Your task to perform on an android device: add a contact in the contacts app Image 0: 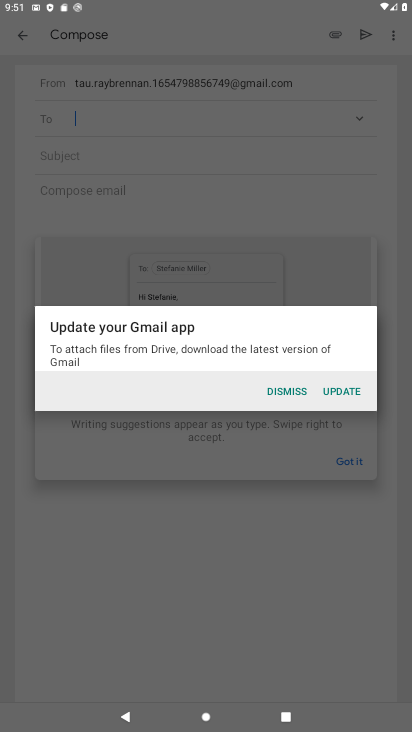
Step 0: press home button
Your task to perform on an android device: add a contact in the contacts app Image 1: 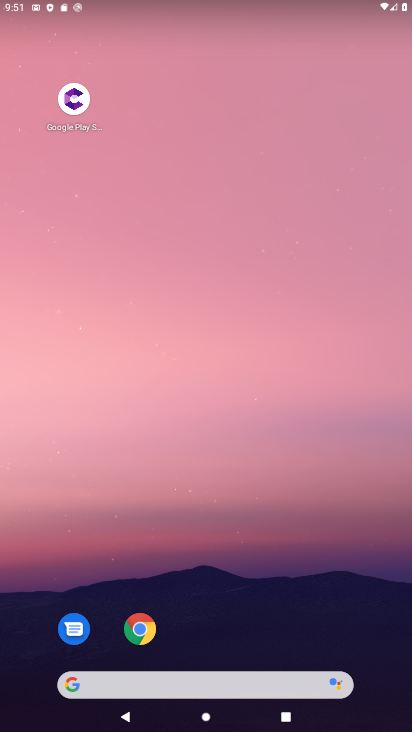
Step 1: click (228, 203)
Your task to perform on an android device: add a contact in the contacts app Image 2: 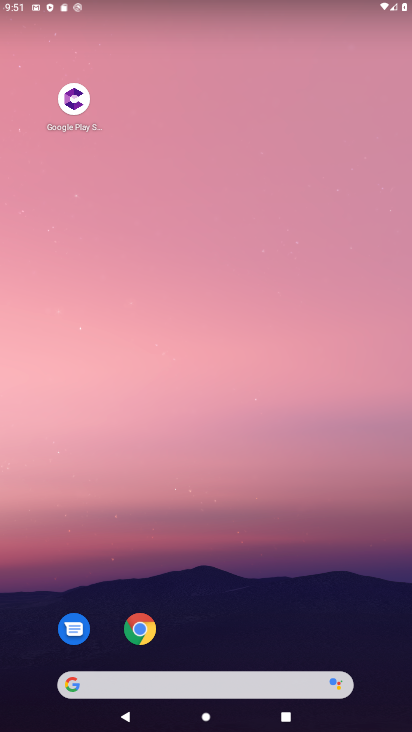
Step 2: drag from (212, 639) to (200, 131)
Your task to perform on an android device: add a contact in the contacts app Image 3: 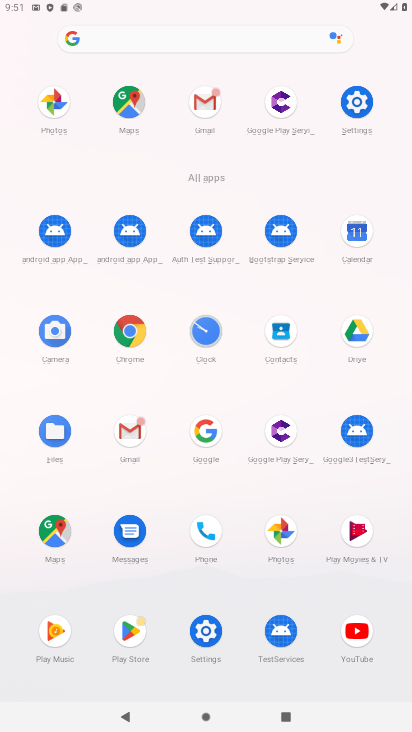
Step 3: click (271, 350)
Your task to perform on an android device: add a contact in the contacts app Image 4: 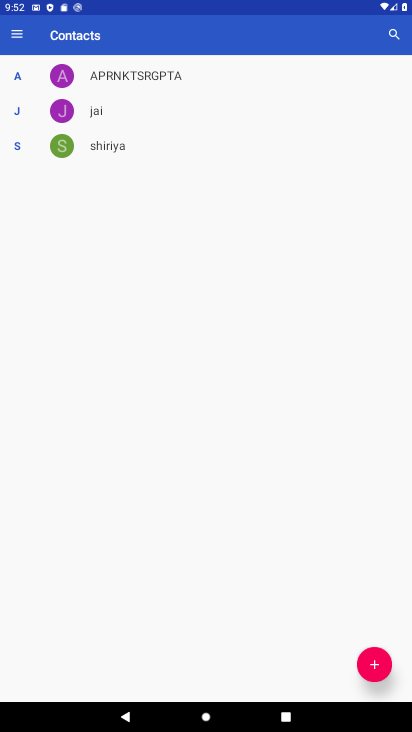
Step 4: click (370, 663)
Your task to perform on an android device: add a contact in the contacts app Image 5: 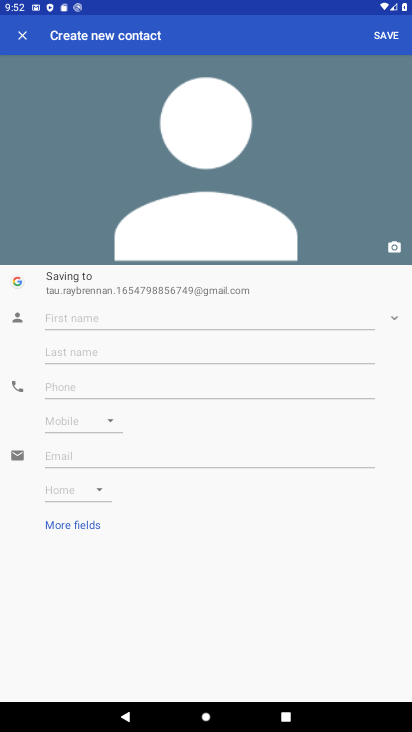
Step 5: click (123, 322)
Your task to perform on an android device: add a contact in the contacts app Image 6: 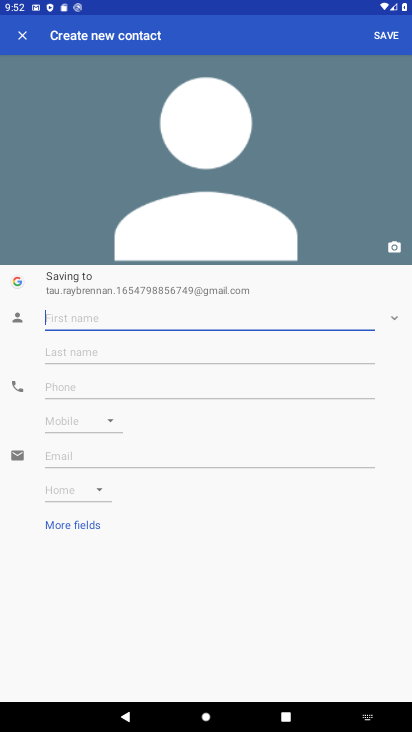
Step 6: type "gfnbfdg"
Your task to perform on an android device: add a contact in the contacts app Image 7: 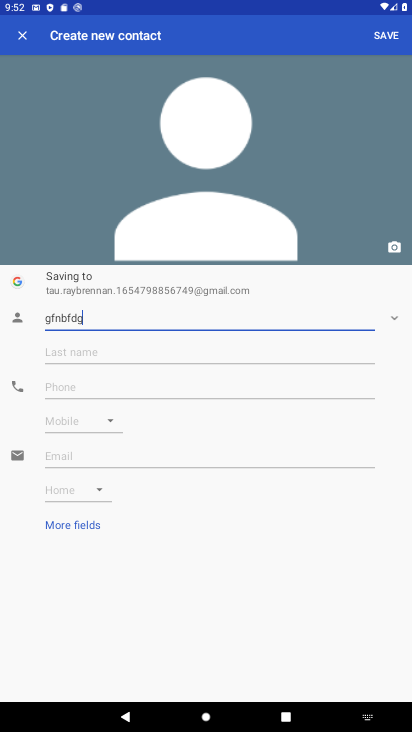
Step 7: click (95, 383)
Your task to perform on an android device: add a contact in the contacts app Image 8: 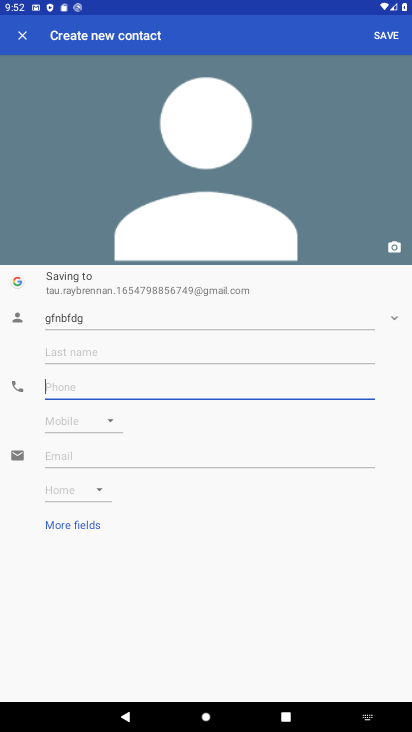
Step 8: type "978676745765"
Your task to perform on an android device: add a contact in the contacts app Image 9: 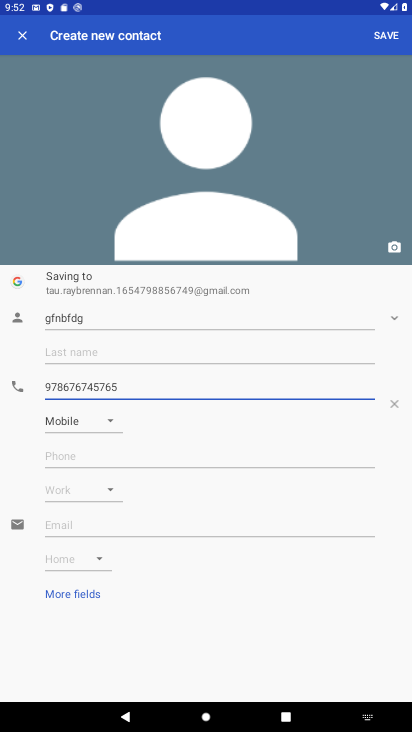
Step 9: click (384, 33)
Your task to perform on an android device: add a contact in the contacts app Image 10: 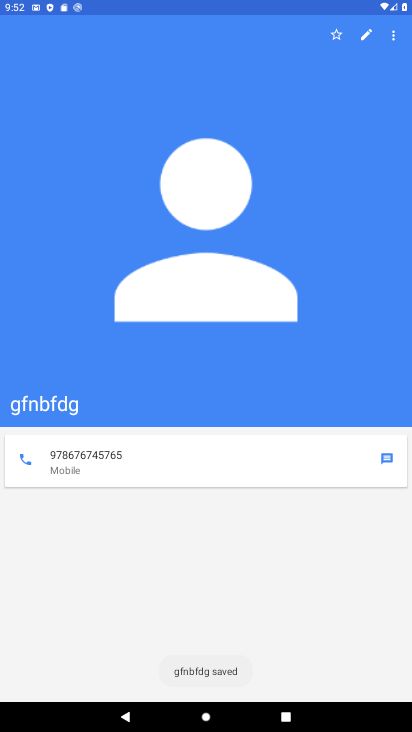
Step 10: task complete